Your task to perform on an android device: stop showing notifications on the lock screen Image 0: 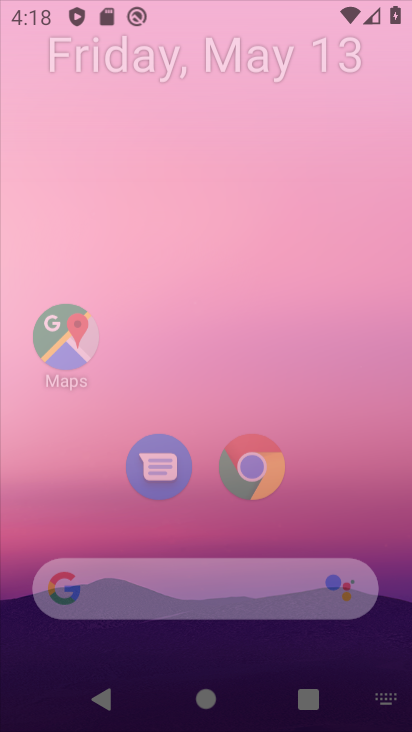
Step 0: drag from (303, 326) to (245, 85)
Your task to perform on an android device: stop showing notifications on the lock screen Image 1: 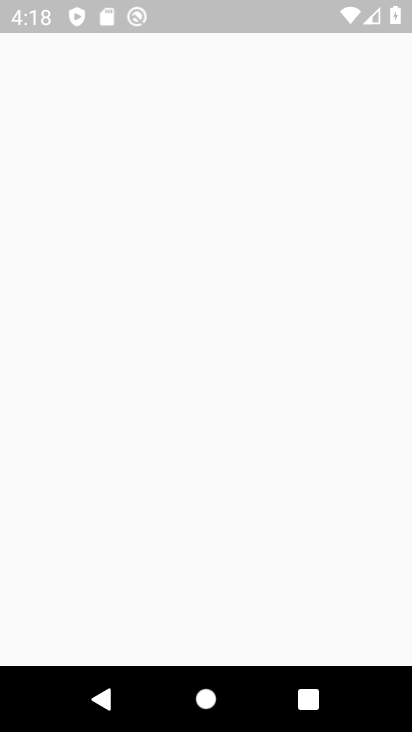
Step 1: press home button
Your task to perform on an android device: stop showing notifications on the lock screen Image 2: 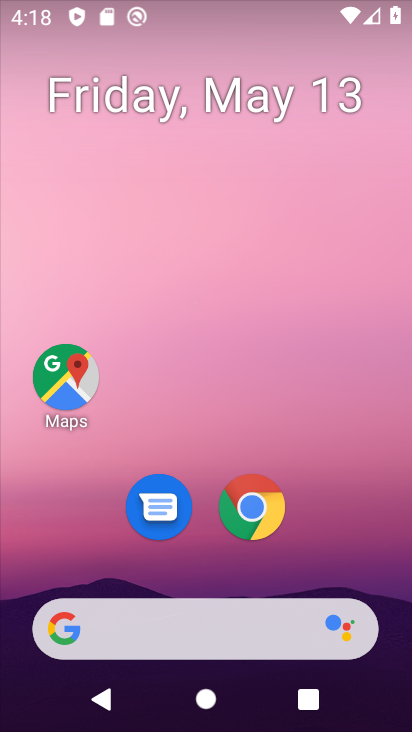
Step 2: drag from (331, 298) to (261, 30)
Your task to perform on an android device: stop showing notifications on the lock screen Image 3: 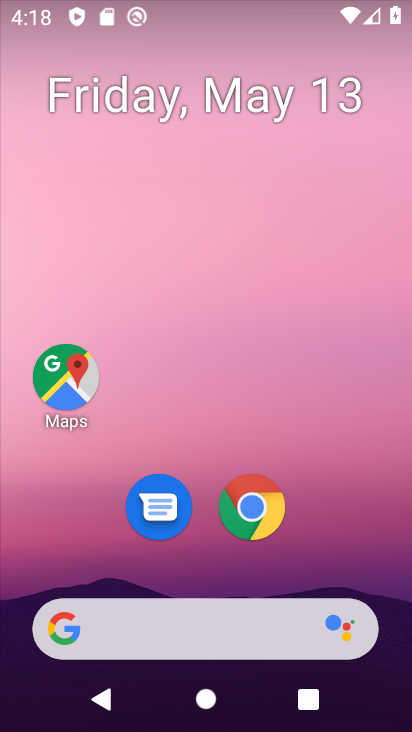
Step 3: drag from (329, 325) to (265, 2)
Your task to perform on an android device: stop showing notifications on the lock screen Image 4: 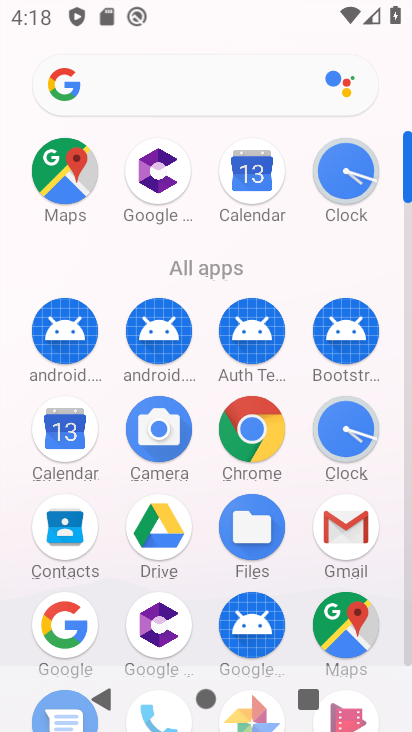
Step 4: drag from (197, 653) to (178, 185)
Your task to perform on an android device: stop showing notifications on the lock screen Image 5: 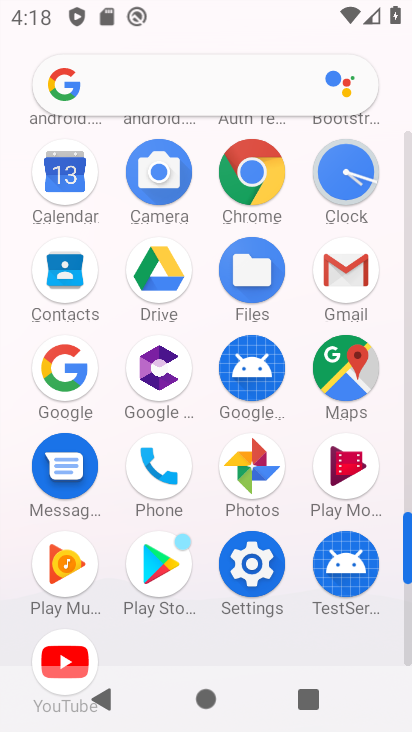
Step 5: click (249, 577)
Your task to perform on an android device: stop showing notifications on the lock screen Image 6: 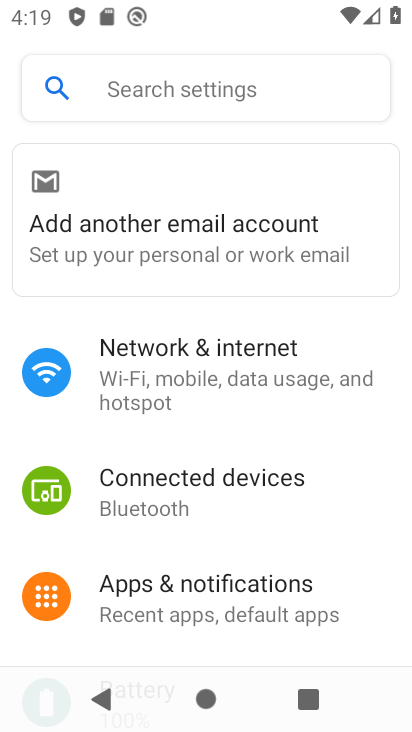
Step 6: click (200, 593)
Your task to perform on an android device: stop showing notifications on the lock screen Image 7: 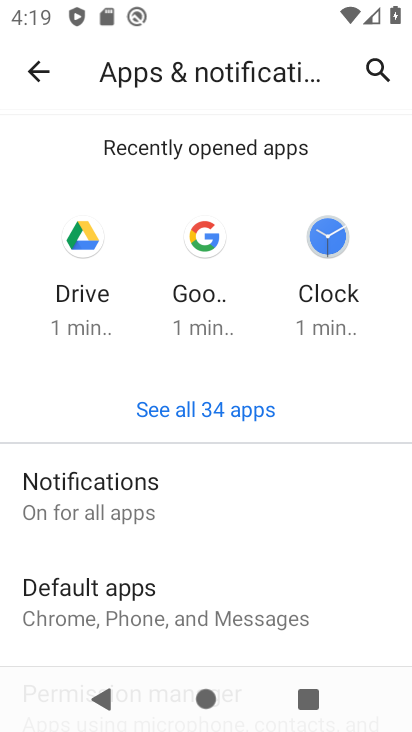
Step 7: click (175, 486)
Your task to perform on an android device: stop showing notifications on the lock screen Image 8: 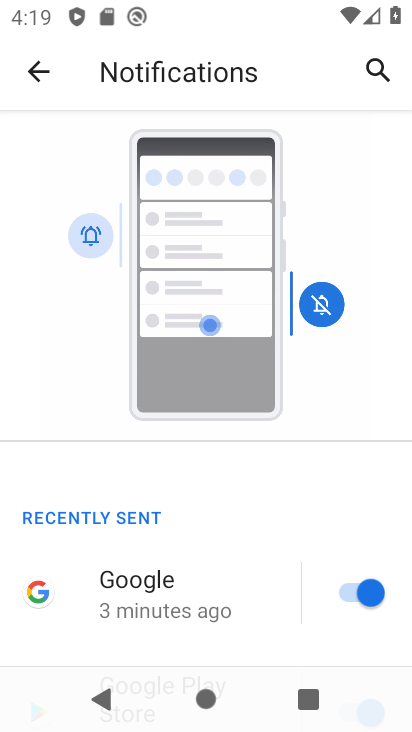
Step 8: drag from (240, 561) to (202, 119)
Your task to perform on an android device: stop showing notifications on the lock screen Image 9: 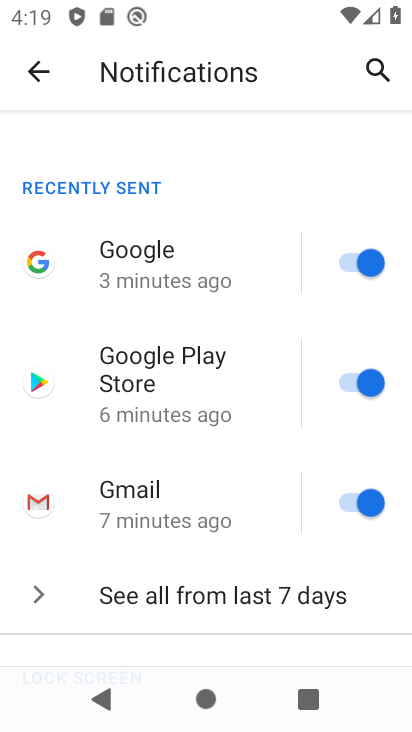
Step 9: drag from (225, 557) to (209, 223)
Your task to perform on an android device: stop showing notifications on the lock screen Image 10: 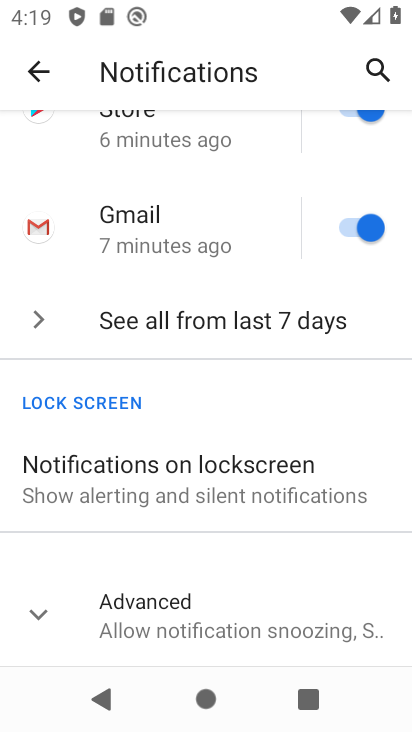
Step 10: click (201, 469)
Your task to perform on an android device: stop showing notifications on the lock screen Image 11: 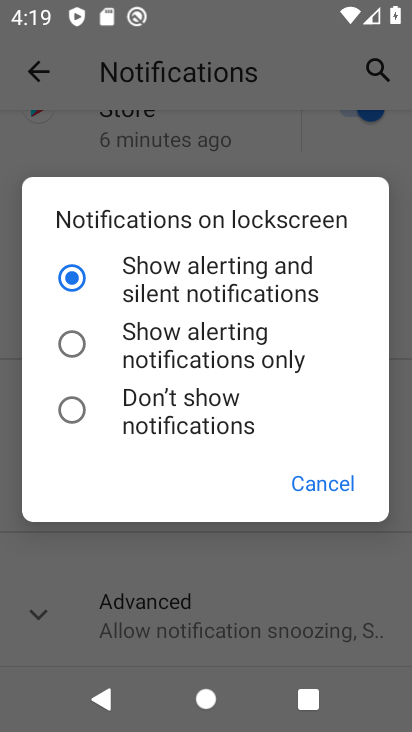
Step 11: click (160, 411)
Your task to perform on an android device: stop showing notifications on the lock screen Image 12: 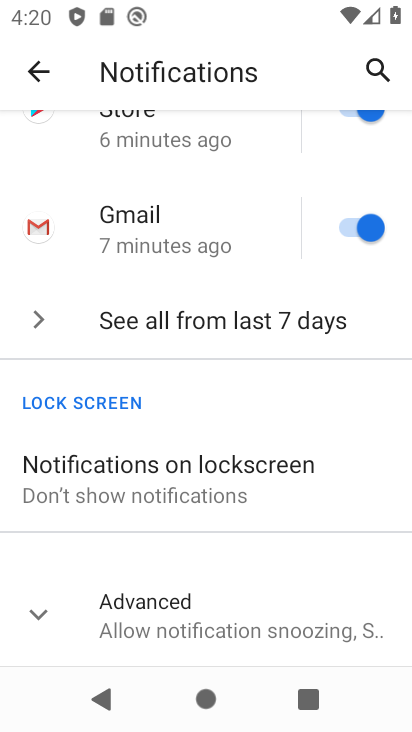
Step 12: task complete